Your task to perform on an android device: Go to sound settings Image 0: 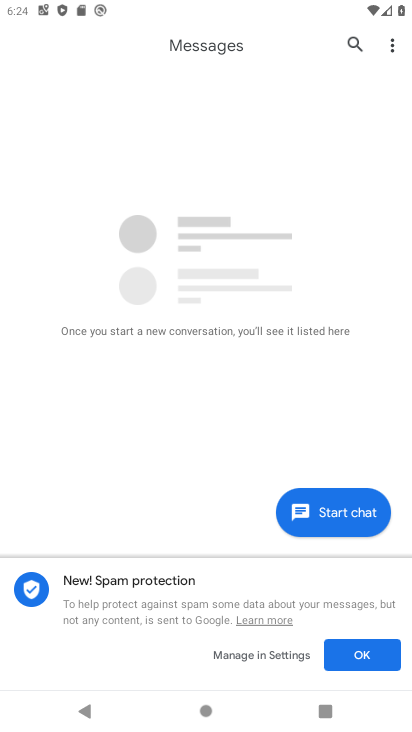
Step 0: press home button
Your task to perform on an android device: Go to sound settings Image 1: 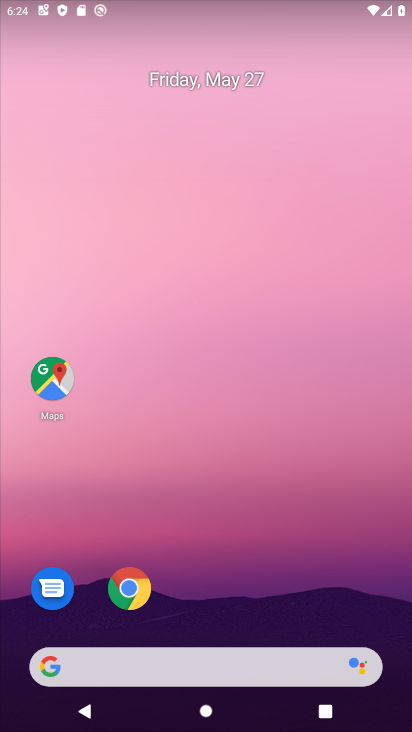
Step 1: drag from (266, 599) to (253, 131)
Your task to perform on an android device: Go to sound settings Image 2: 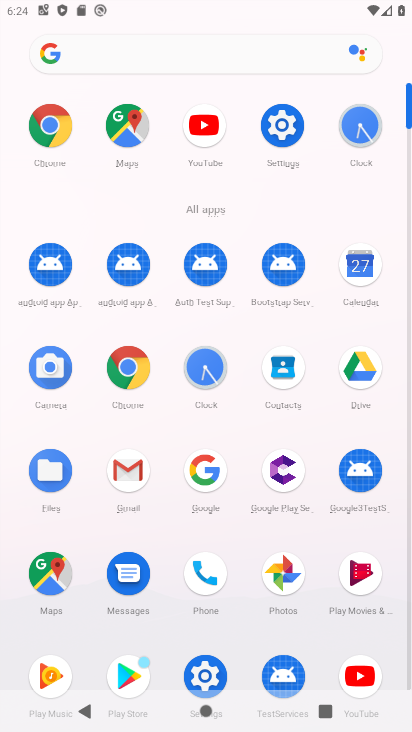
Step 2: click (283, 125)
Your task to perform on an android device: Go to sound settings Image 3: 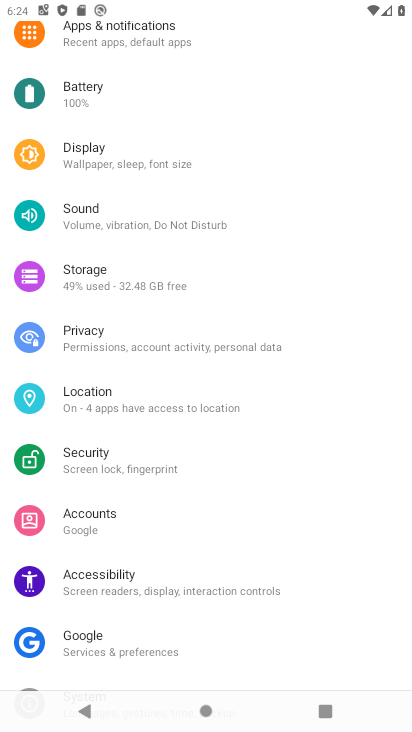
Step 3: drag from (211, 553) to (205, 243)
Your task to perform on an android device: Go to sound settings Image 4: 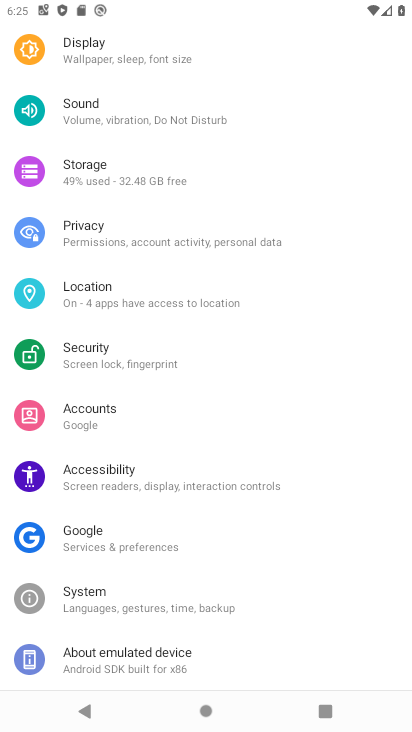
Step 4: click (73, 114)
Your task to perform on an android device: Go to sound settings Image 5: 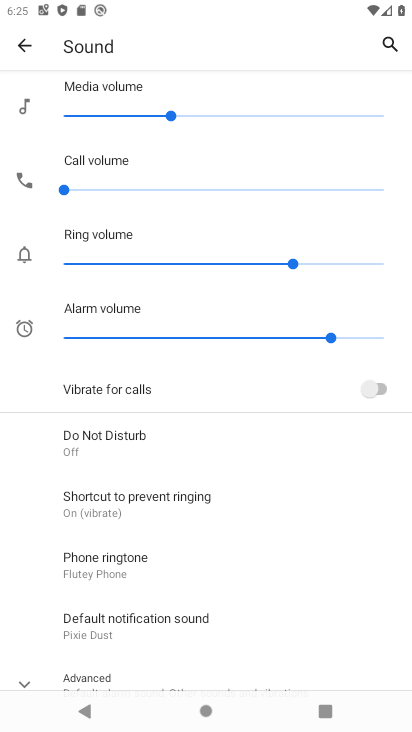
Step 5: task complete